Your task to perform on an android device: check the backup settings in the google photos Image 0: 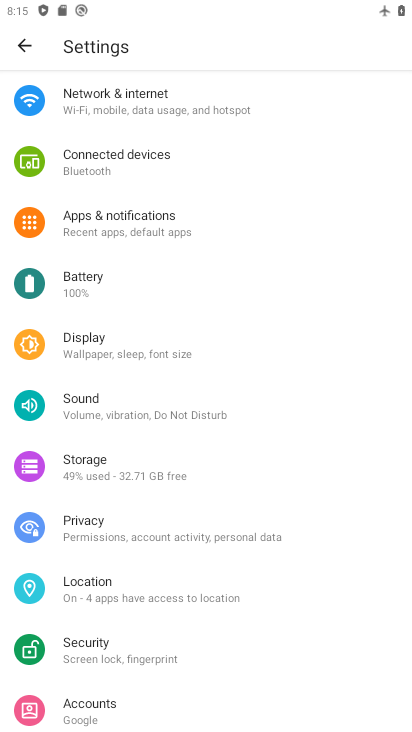
Step 0: press home button
Your task to perform on an android device: check the backup settings in the google photos Image 1: 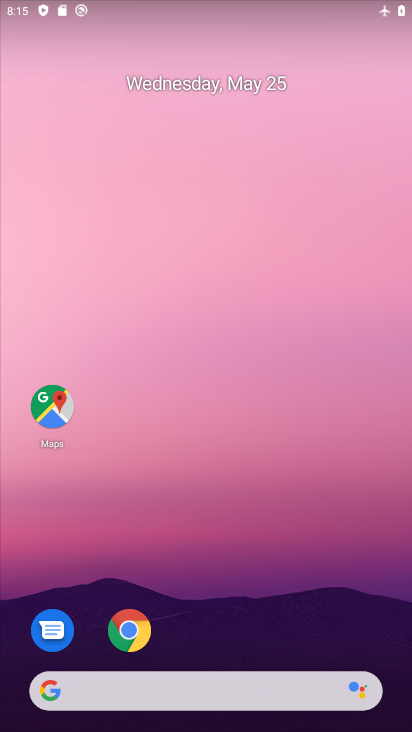
Step 1: drag from (211, 665) to (315, 116)
Your task to perform on an android device: check the backup settings in the google photos Image 2: 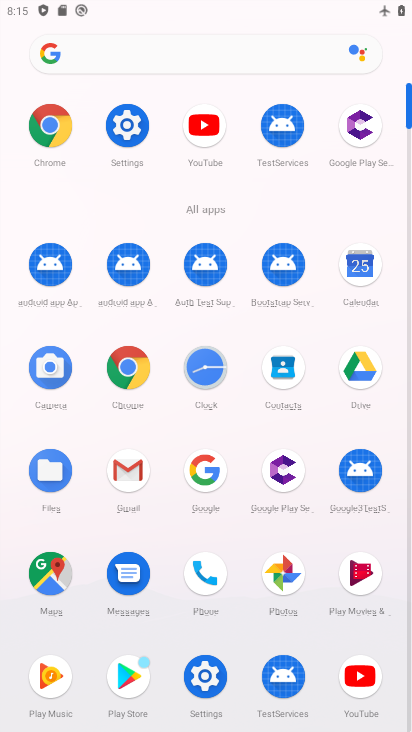
Step 2: click (284, 571)
Your task to perform on an android device: check the backup settings in the google photos Image 3: 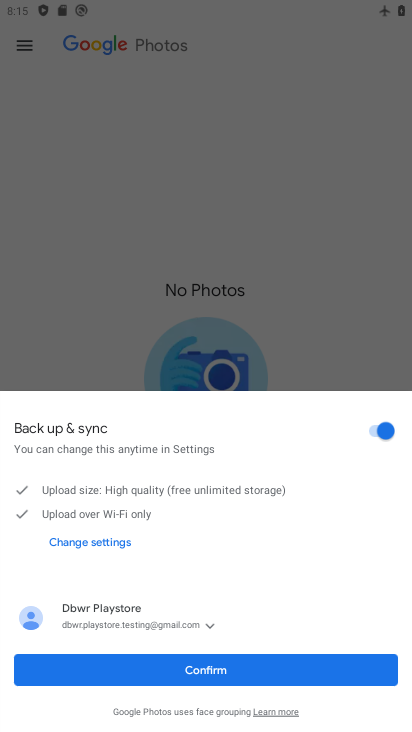
Step 3: click (232, 678)
Your task to perform on an android device: check the backup settings in the google photos Image 4: 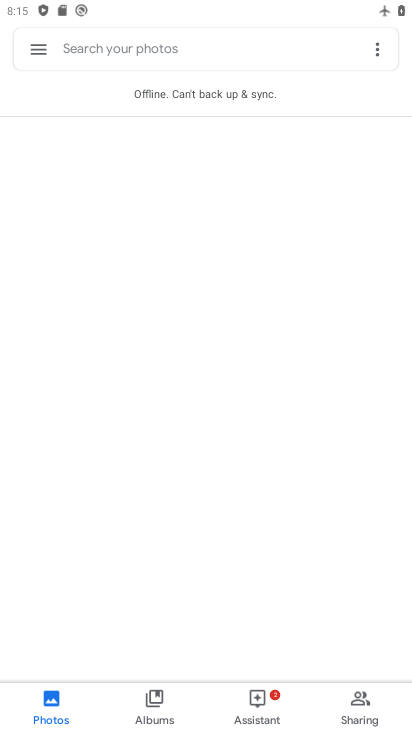
Step 4: click (41, 46)
Your task to perform on an android device: check the backup settings in the google photos Image 5: 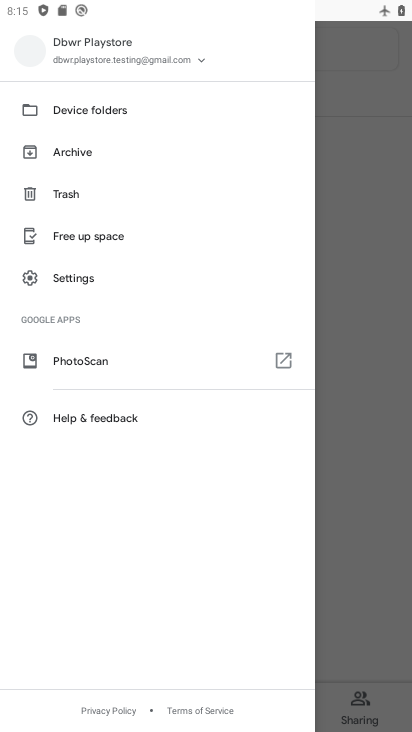
Step 5: click (109, 284)
Your task to perform on an android device: check the backup settings in the google photos Image 6: 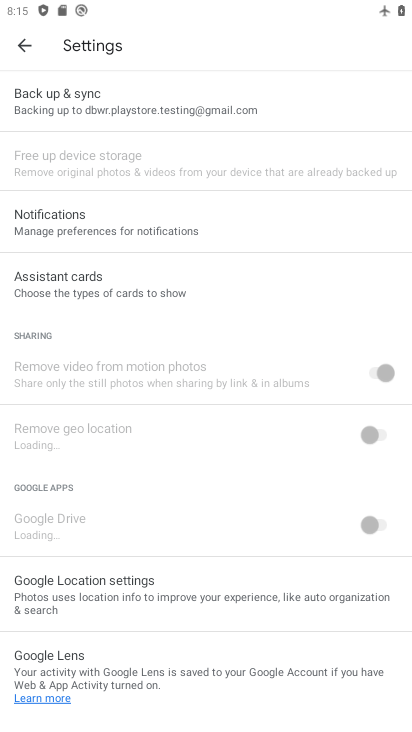
Step 6: click (136, 100)
Your task to perform on an android device: check the backup settings in the google photos Image 7: 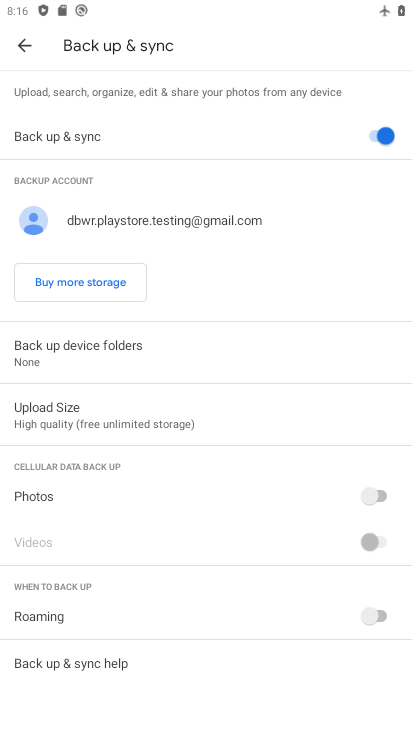
Step 7: task complete